Your task to perform on an android device: What's the weather? Image 0: 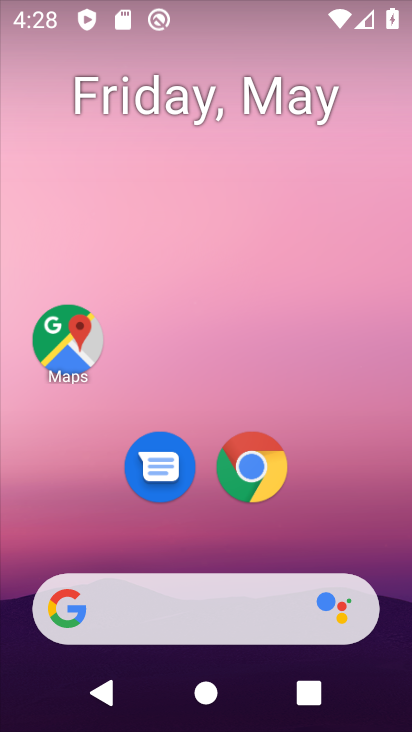
Step 0: drag from (348, 522) to (360, 93)
Your task to perform on an android device: What's the weather? Image 1: 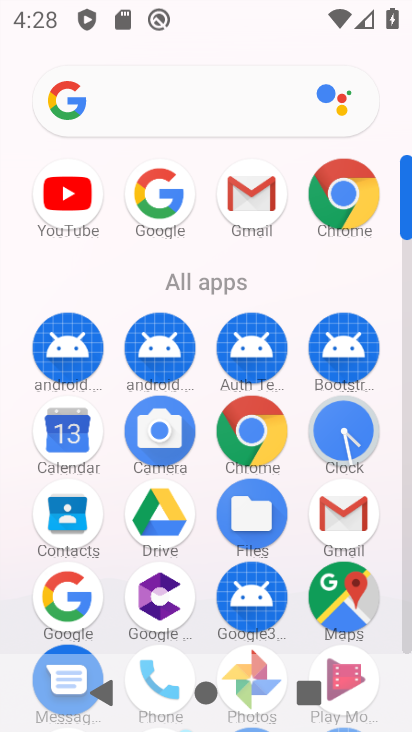
Step 1: click (264, 434)
Your task to perform on an android device: What's the weather? Image 2: 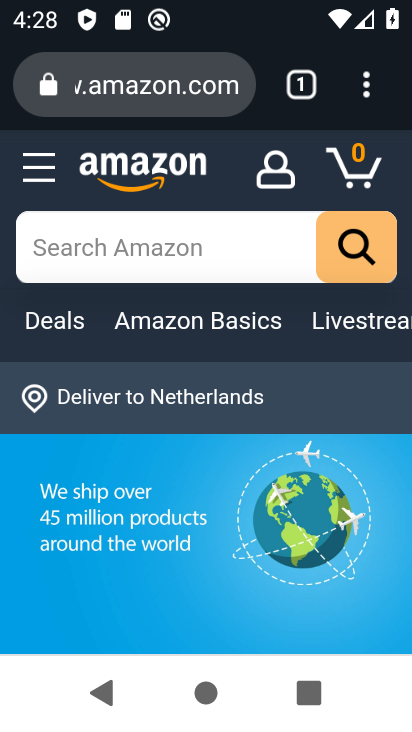
Step 2: click (176, 98)
Your task to perform on an android device: What's the weather? Image 3: 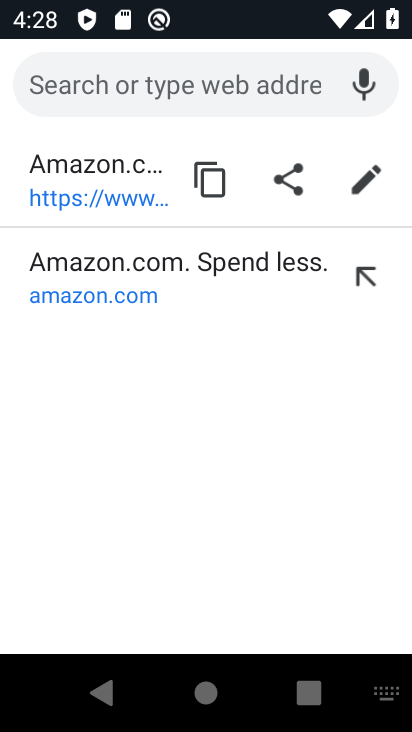
Step 3: type "weather"
Your task to perform on an android device: What's the weather? Image 4: 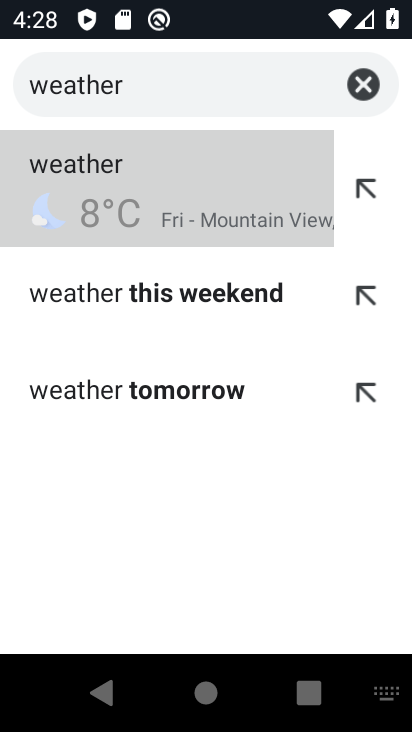
Step 4: click (79, 208)
Your task to perform on an android device: What's the weather? Image 5: 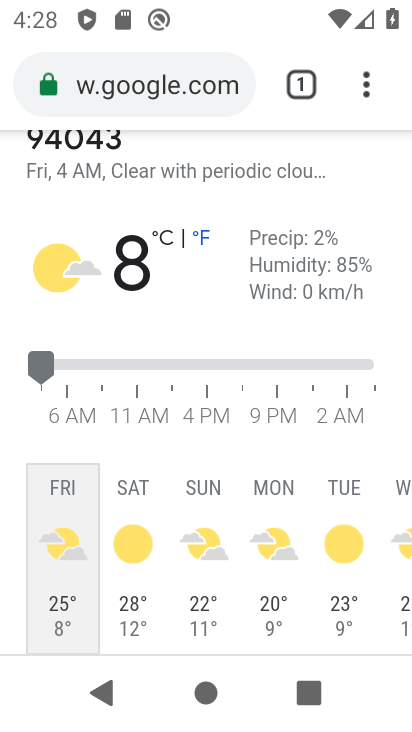
Step 5: task complete